Your task to perform on an android device: show emergency info Image 0: 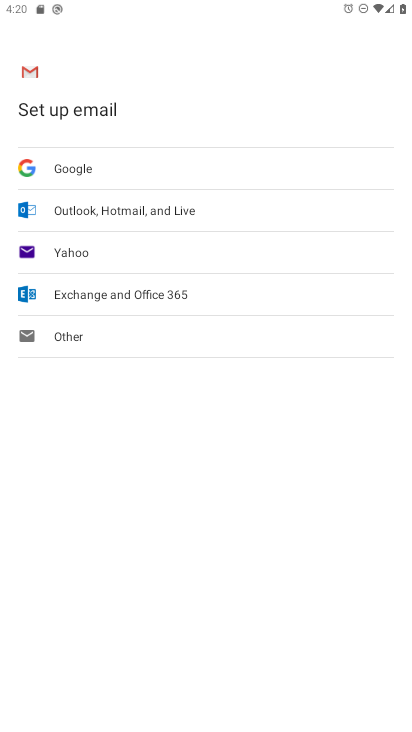
Step 0: press home button
Your task to perform on an android device: show emergency info Image 1: 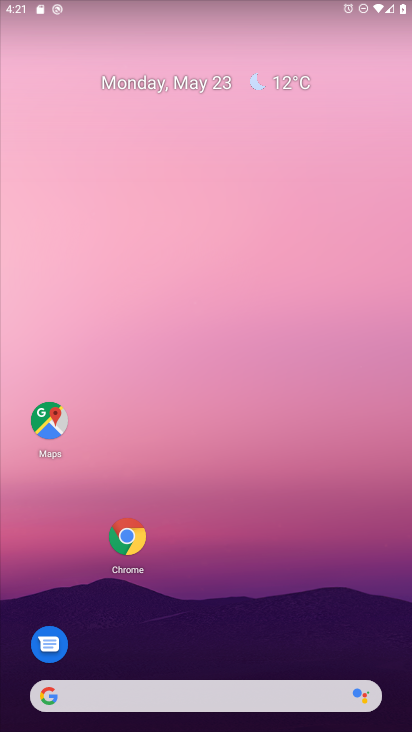
Step 1: drag from (260, 595) to (206, 42)
Your task to perform on an android device: show emergency info Image 2: 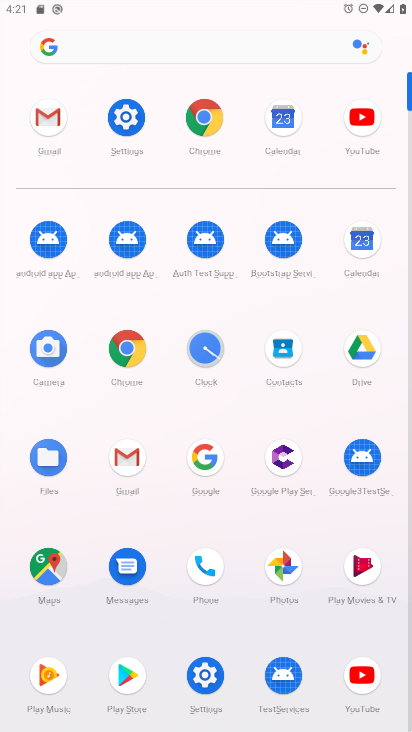
Step 2: click (131, 121)
Your task to perform on an android device: show emergency info Image 3: 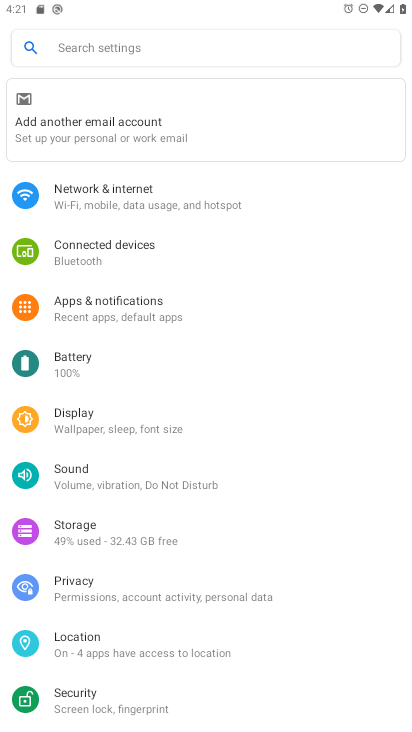
Step 3: drag from (211, 606) to (199, 149)
Your task to perform on an android device: show emergency info Image 4: 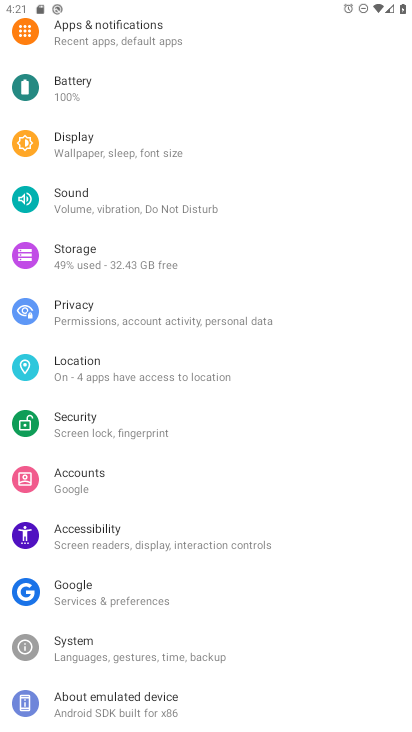
Step 4: drag from (186, 269) to (188, 228)
Your task to perform on an android device: show emergency info Image 5: 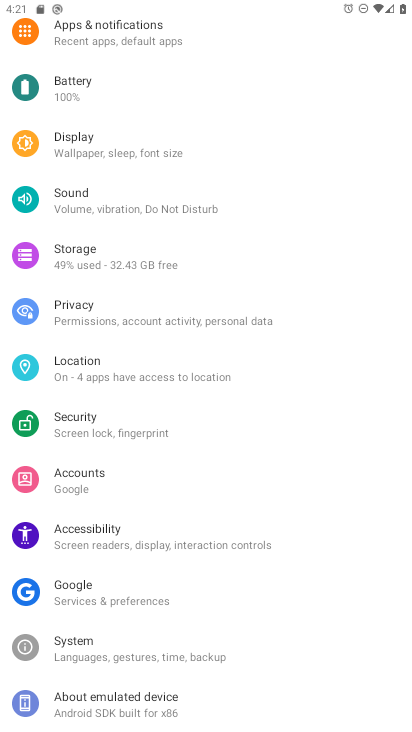
Step 5: click (123, 693)
Your task to perform on an android device: show emergency info Image 6: 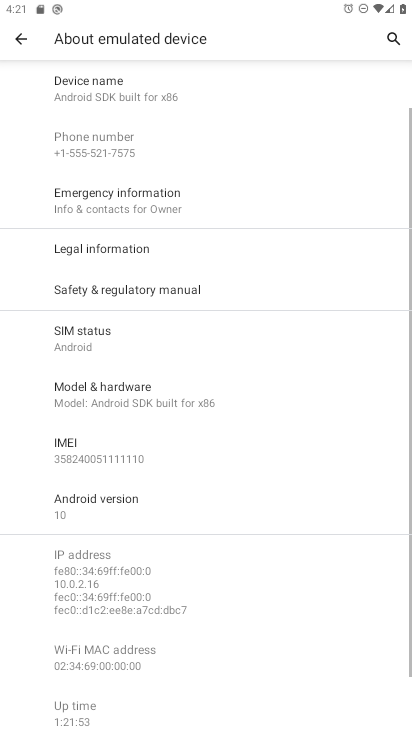
Step 6: click (194, 217)
Your task to perform on an android device: show emergency info Image 7: 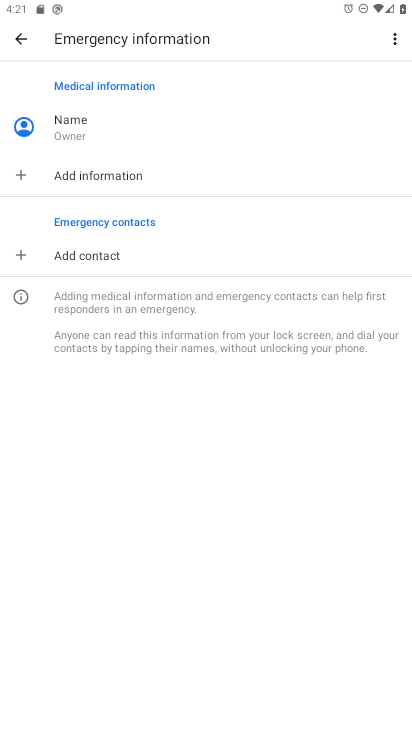
Step 7: task complete